Your task to perform on an android device: turn pop-ups off in chrome Image 0: 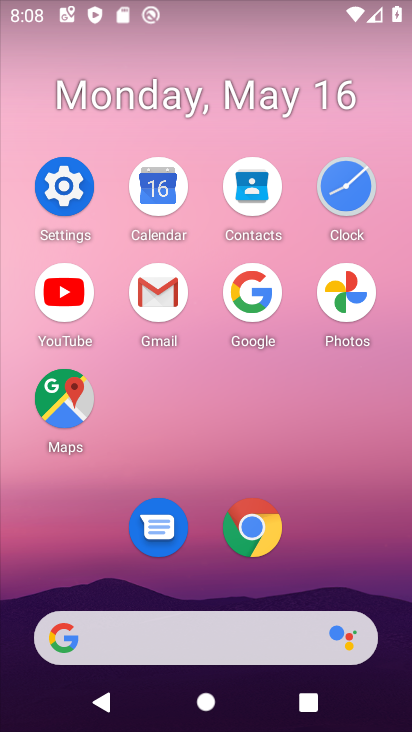
Step 0: click (250, 528)
Your task to perform on an android device: turn pop-ups off in chrome Image 1: 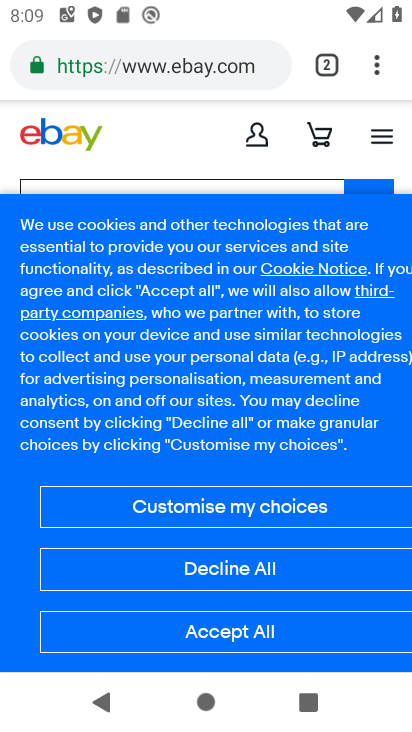
Step 1: click (375, 68)
Your task to perform on an android device: turn pop-ups off in chrome Image 2: 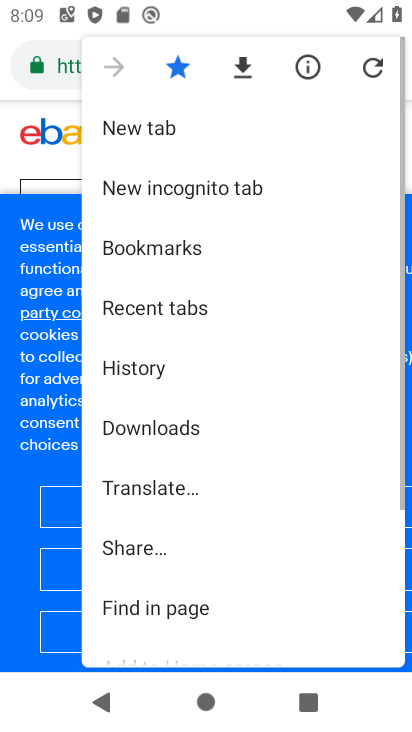
Step 2: drag from (274, 504) to (265, 162)
Your task to perform on an android device: turn pop-ups off in chrome Image 3: 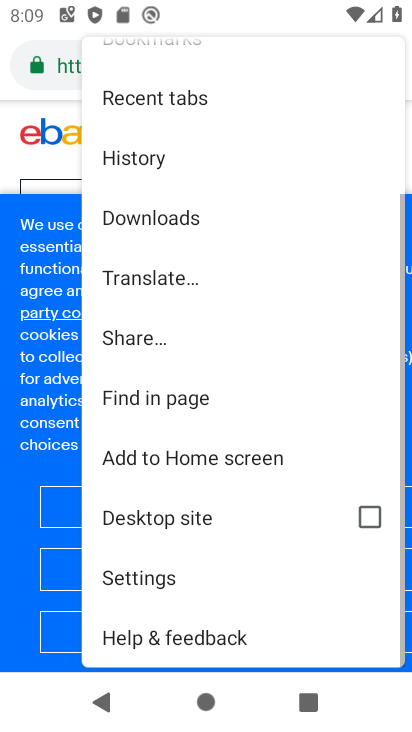
Step 3: click (215, 558)
Your task to perform on an android device: turn pop-ups off in chrome Image 4: 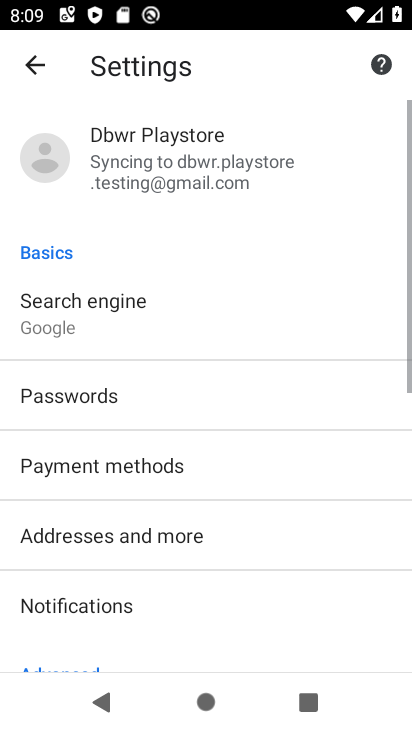
Step 4: drag from (214, 481) to (216, 8)
Your task to perform on an android device: turn pop-ups off in chrome Image 5: 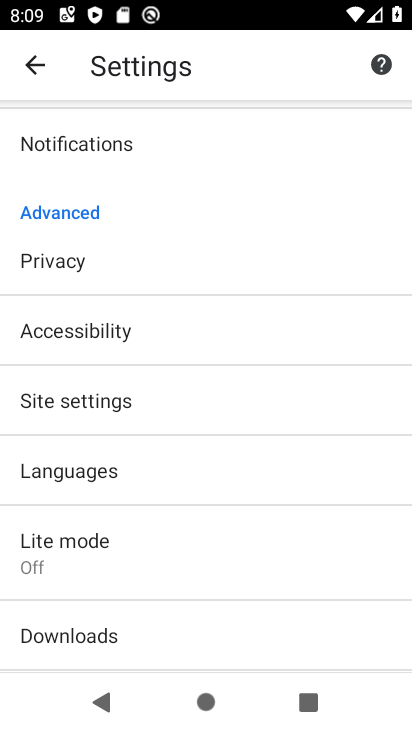
Step 5: click (148, 420)
Your task to perform on an android device: turn pop-ups off in chrome Image 6: 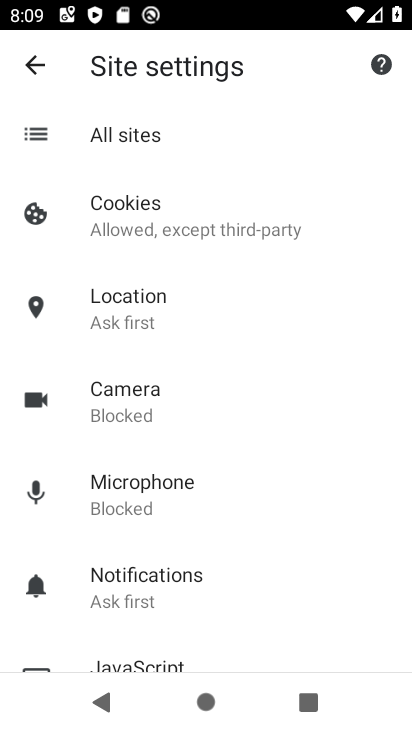
Step 6: drag from (221, 515) to (237, 75)
Your task to perform on an android device: turn pop-ups off in chrome Image 7: 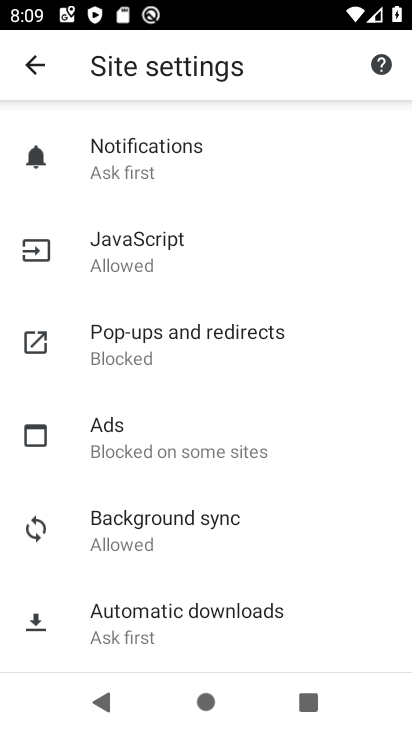
Step 7: drag from (211, 581) to (219, 177)
Your task to perform on an android device: turn pop-ups off in chrome Image 8: 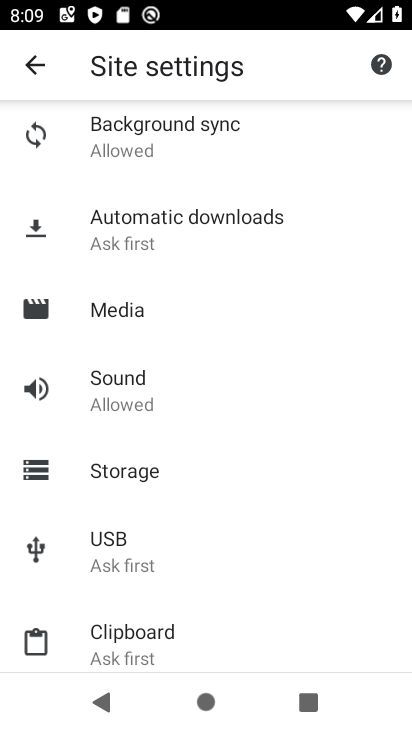
Step 8: drag from (279, 514) to (333, 176)
Your task to perform on an android device: turn pop-ups off in chrome Image 9: 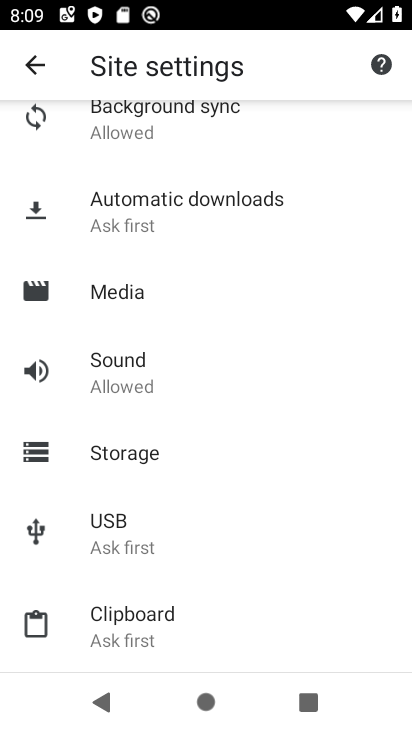
Step 9: drag from (290, 238) to (257, 650)
Your task to perform on an android device: turn pop-ups off in chrome Image 10: 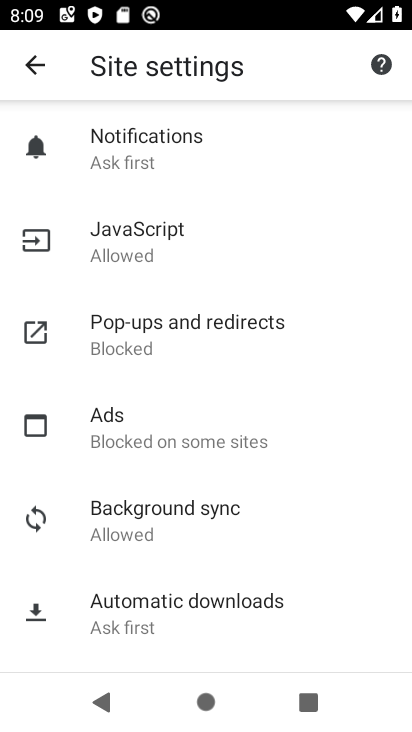
Step 10: click (190, 321)
Your task to perform on an android device: turn pop-ups off in chrome Image 11: 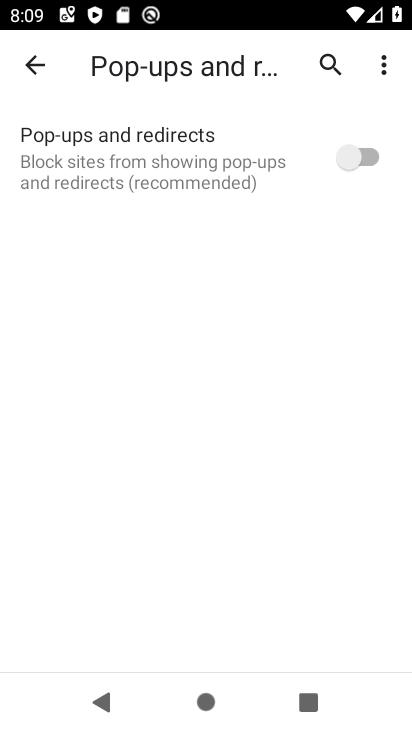
Step 11: task complete